Your task to perform on an android device: Open Google Chrome and click the shortcut for Amazon.com Image 0: 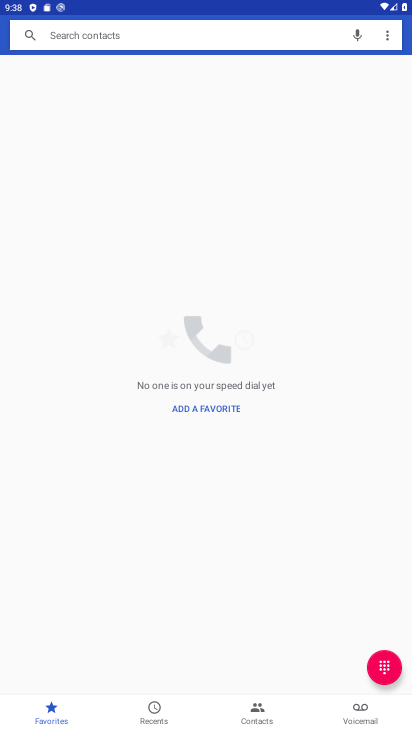
Step 0: drag from (306, 628) to (325, 377)
Your task to perform on an android device: Open Google Chrome and click the shortcut for Amazon.com Image 1: 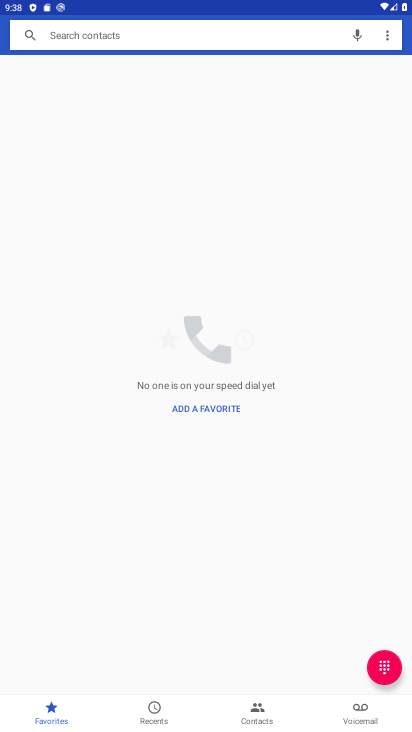
Step 1: press home button
Your task to perform on an android device: Open Google Chrome and click the shortcut for Amazon.com Image 2: 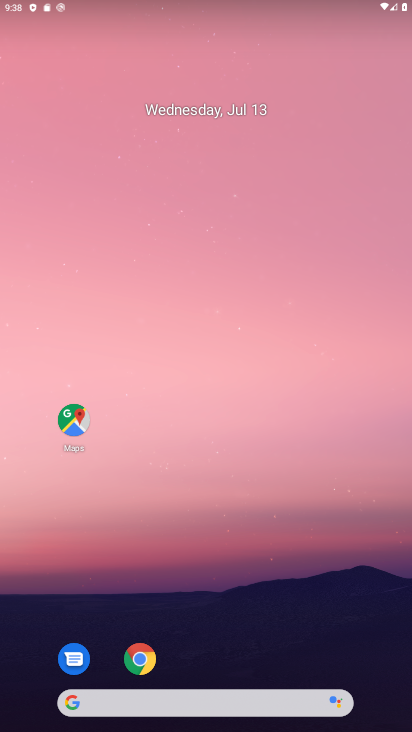
Step 2: drag from (336, 597) to (276, 68)
Your task to perform on an android device: Open Google Chrome and click the shortcut for Amazon.com Image 3: 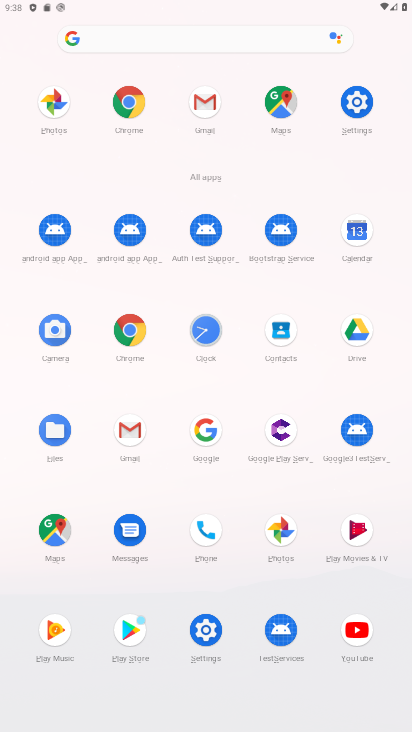
Step 3: click (128, 96)
Your task to perform on an android device: Open Google Chrome and click the shortcut for Amazon.com Image 4: 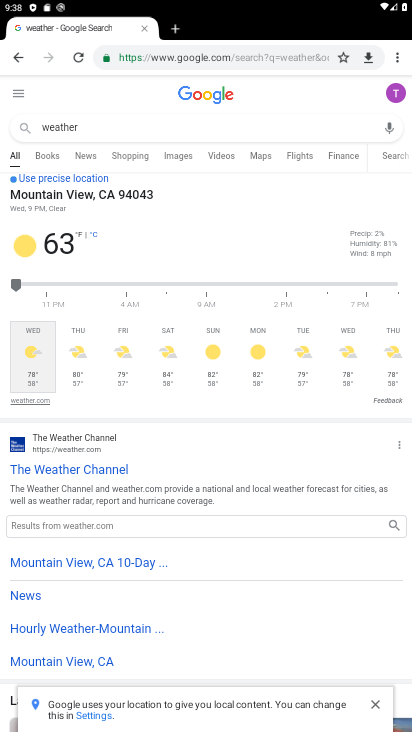
Step 4: click (179, 26)
Your task to perform on an android device: Open Google Chrome and click the shortcut for Amazon.com Image 5: 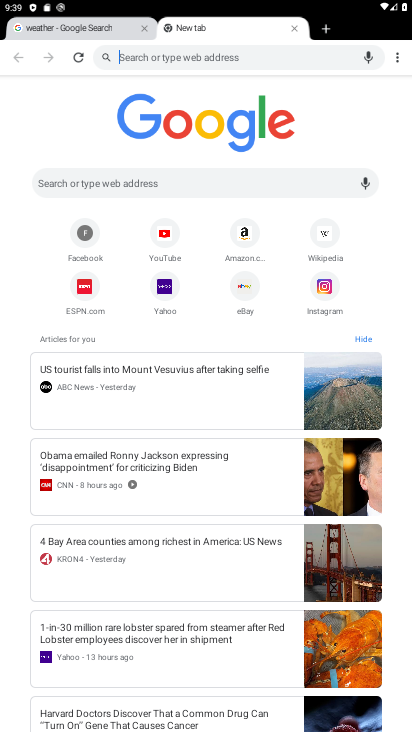
Step 5: click (250, 234)
Your task to perform on an android device: Open Google Chrome and click the shortcut for Amazon.com Image 6: 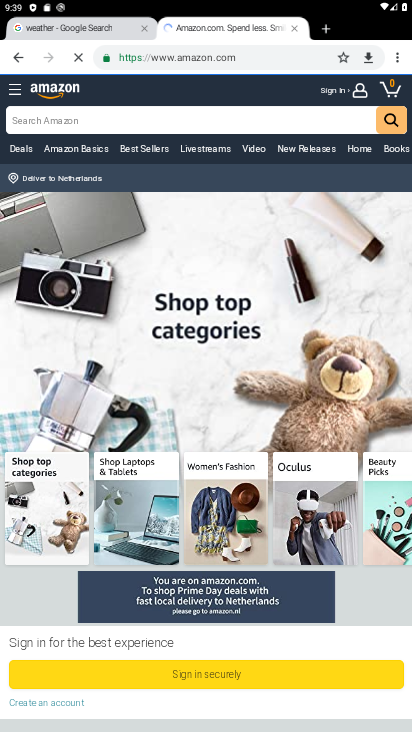
Step 6: task complete